Your task to perform on an android device: show emergency info Image 0: 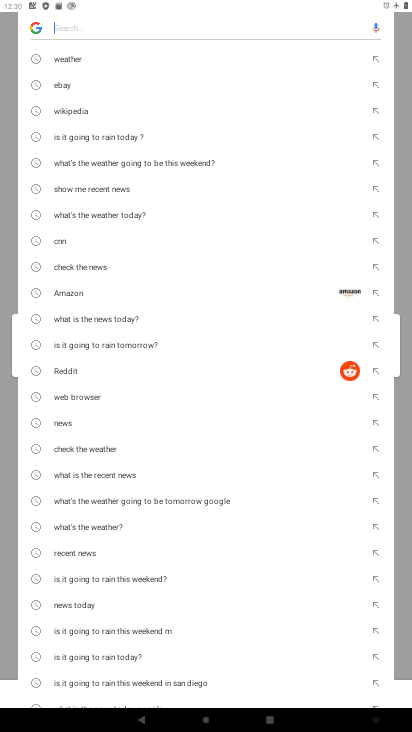
Step 0: press home button
Your task to perform on an android device: show emergency info Image 1: 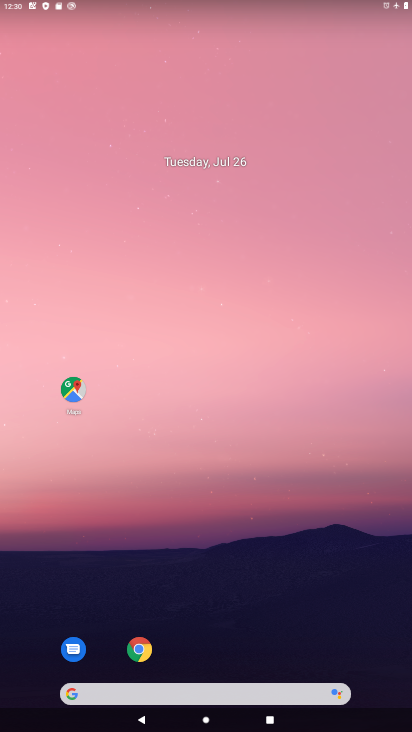
Step 1: drag from (218, 694) to (211, 176)
Your task to perform on an android device: show emergency info Image 2: 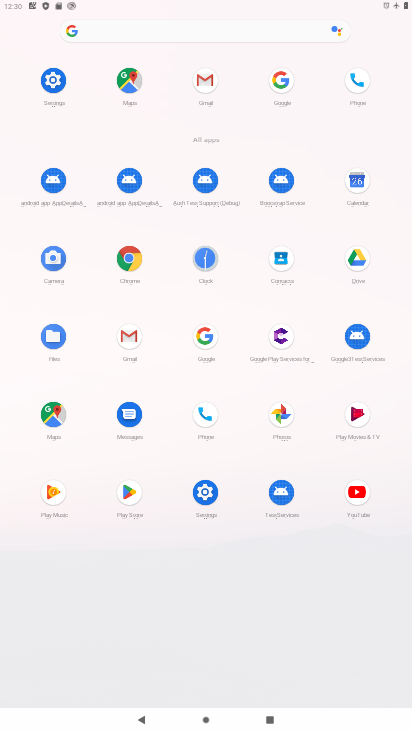
Step 2: click (202, 494)
Your task to perform on an android device: show emergency info Image 3: 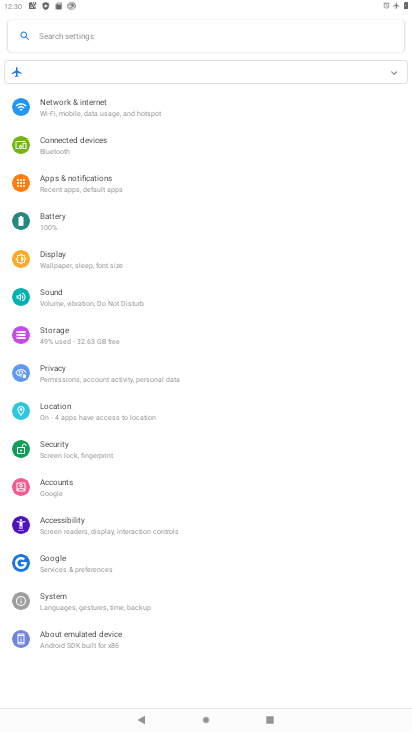
Step 3: click (76, 638)
Your task to perform on an android device: show emergency info Image 4: 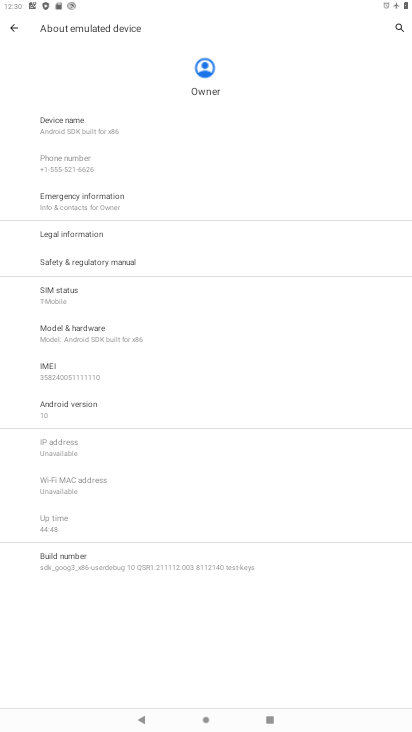
Step 4: click (94, 205)
Your task to perform on an android device: show emergency info Image 5: 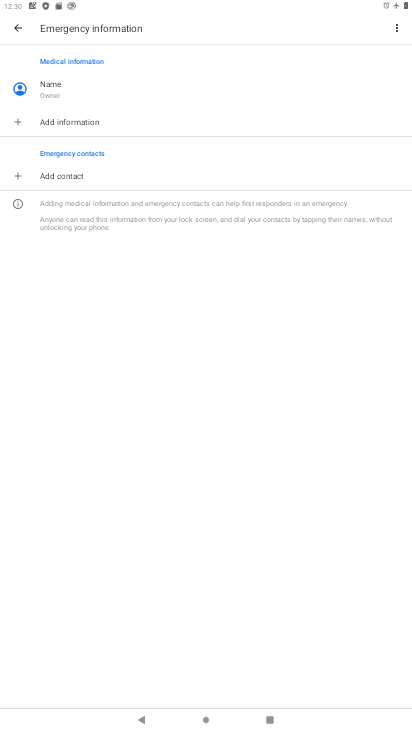
Step 5: task complete